Your task to perform on an android device: When is my next meeting? Image 0: 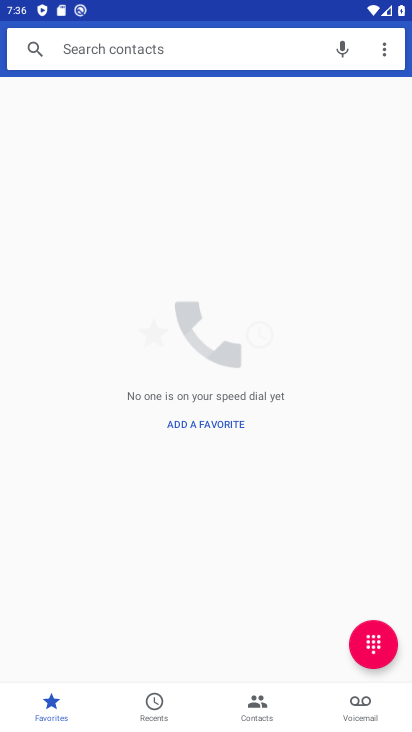
Step 0: press home button
Your task to perform on an android device: When is my next meeting? Image 1: 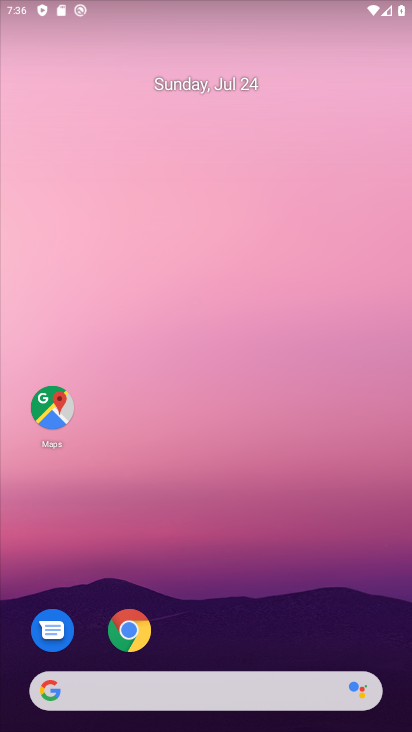
Step 1: drag from (218, 619) to (232, 6)
Your task to perform on an android device: When is my next meeting? Image 2: 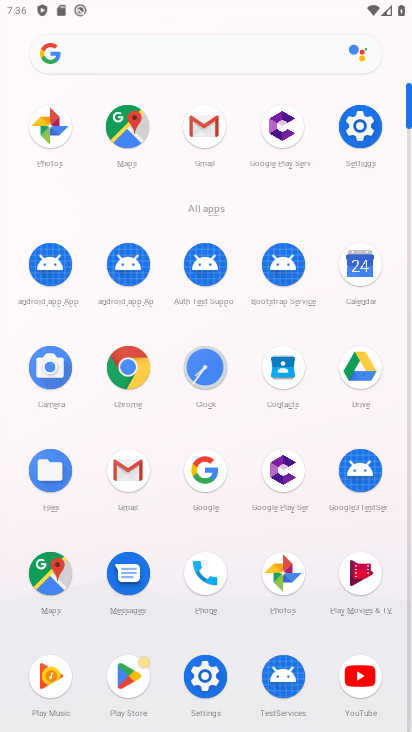
Step 2: click (348, 260)
Your task to perform on an android device: When is my next meeting? Image 3: 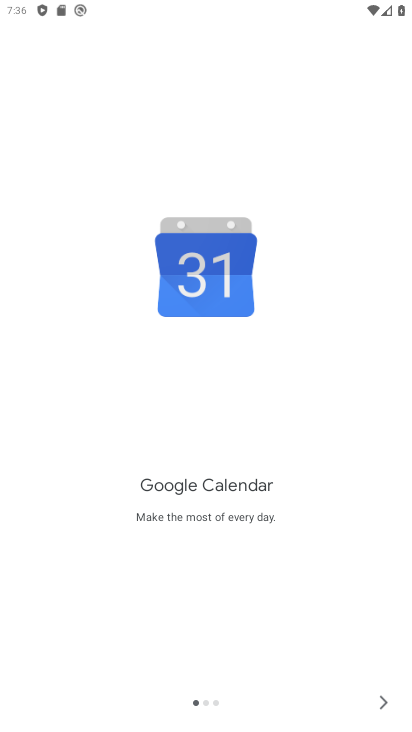
Step 3: click (387, 704)
Your task to perform on an android device: When is my next meeting? Image 4: 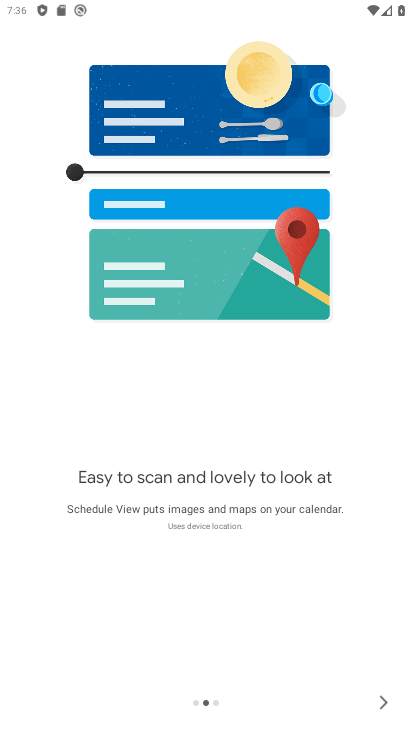
Step 4: click (387, 704)
Your task to perform on an android device: When is my next meeting? Image 5: 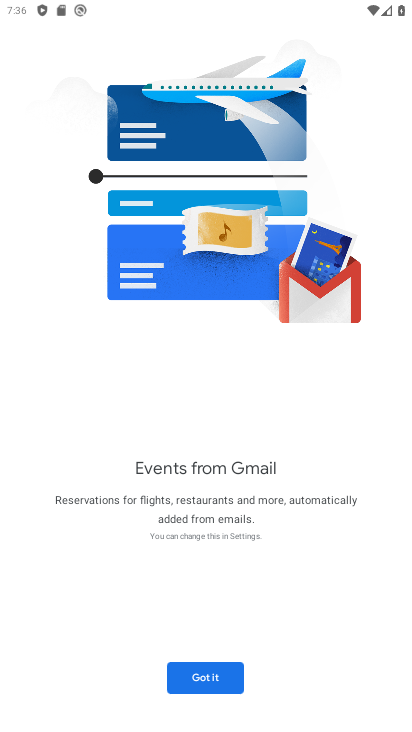
Step 5: click (386, 704)
Your task to perform on an android device: When is my next meeting? Image 6: 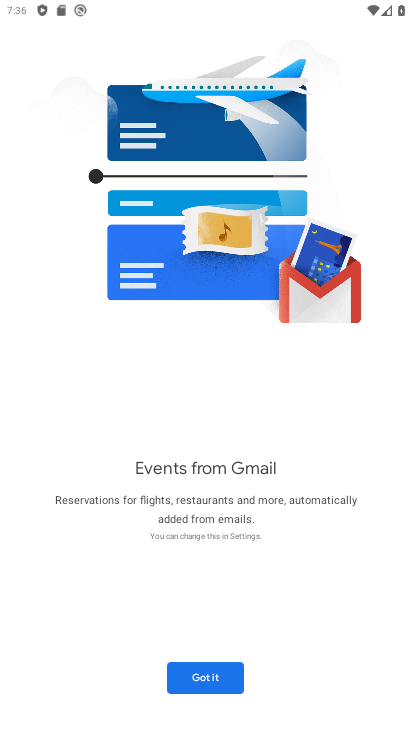
Step 6: click (238, 675)
Your task to perform on an android device: When is my next meeting? Image 7: 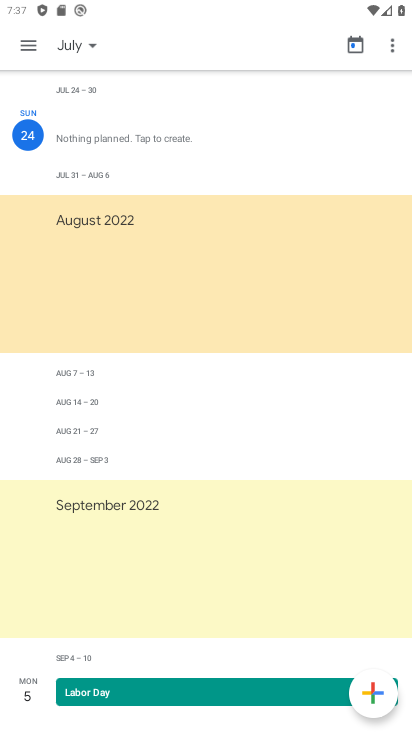
Step 7: click (80, 46)
Your task to perform on an android device: When is my next meeting? Image 8: 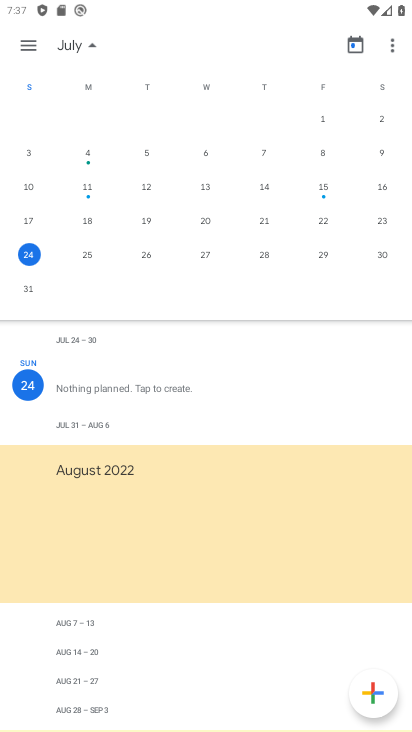
Step 8: click (59, 256)
Your task to perform on an android device: When is my next meeting? Image 9: 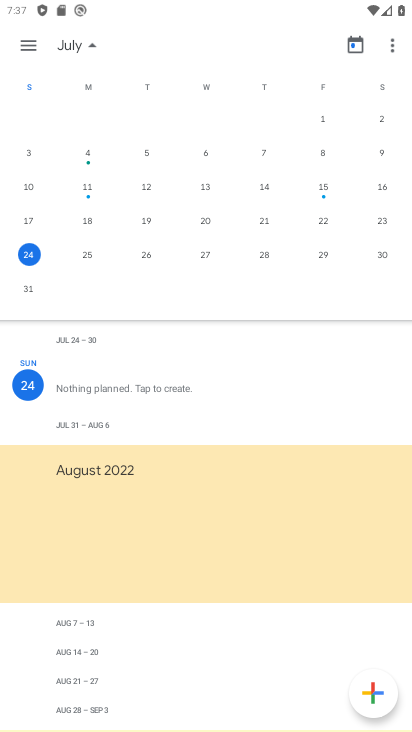
Step 9: click (115, 269)
Your task to perform on an android device: When is my next meeting? Image 10: 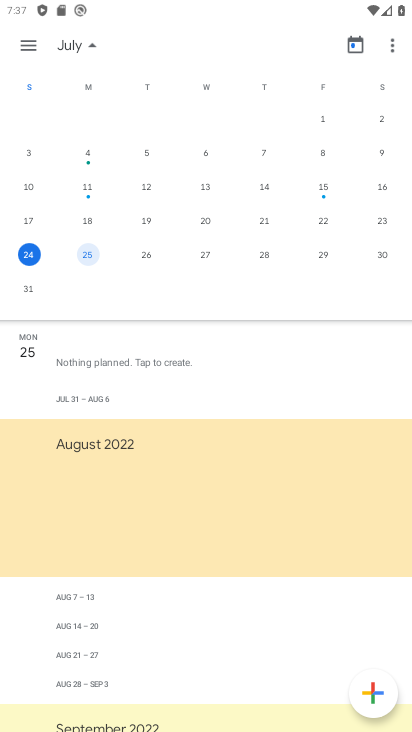
Step 10: click (150, 271)
Your task to perform on an android device: When is my next meeting? Image 11: 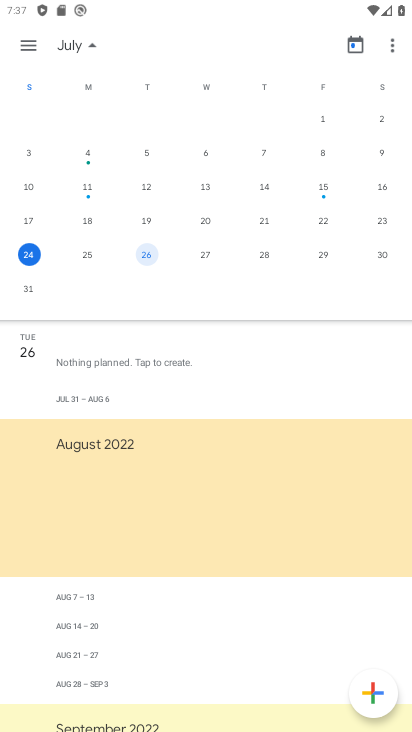
Step 11: click (14, 43)
Your task to perform on an android device: When is my next meeting? Image 12: 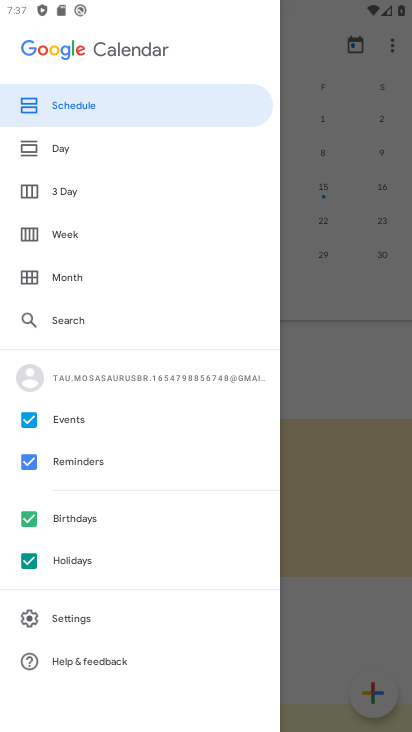
Step 12: click (338, 123)
Your task to perform on an android device: When is my next meeting? Image 13: 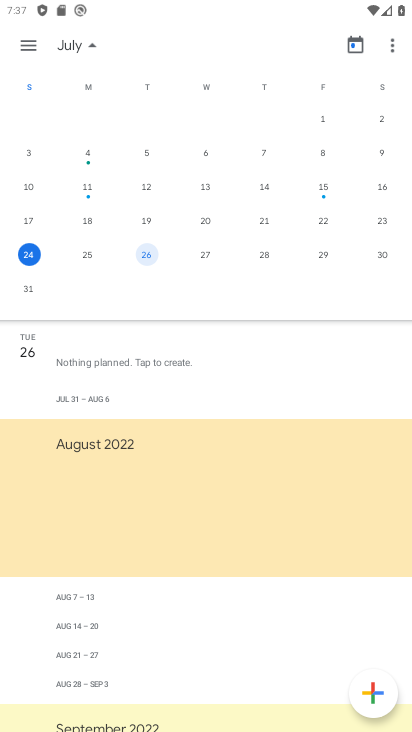
Step 13: task complete